Your task to perform on an android device: What is the recent news? Image 0: 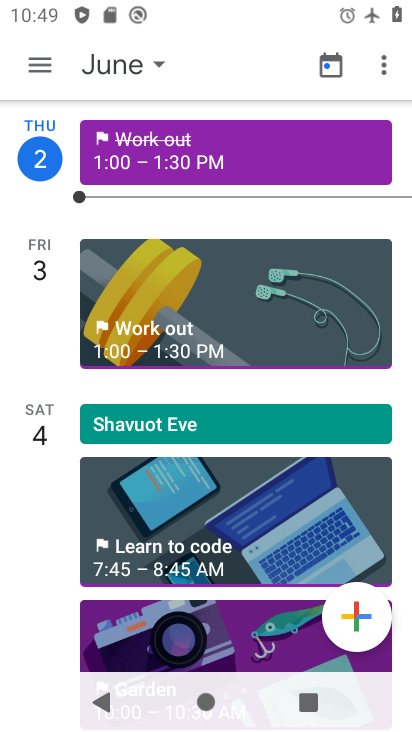
Step 0: press home button
Your task to perform on an android device: What is the recent news? Image 1: 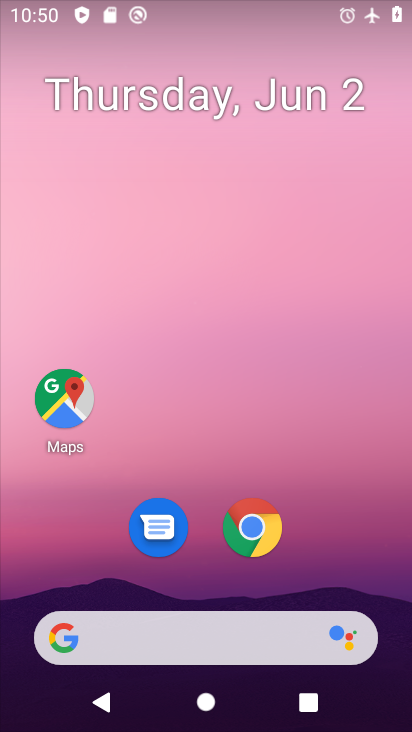
Step 1: task complete